Your task to perform on an android device: all mails in gmail Image 0: 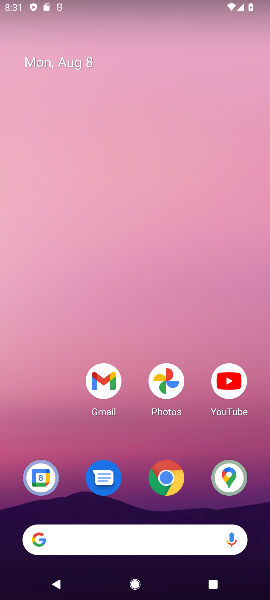
Step 0: click (104, 380)
Your task to perform on an android device: all mails in gmail Image 1: 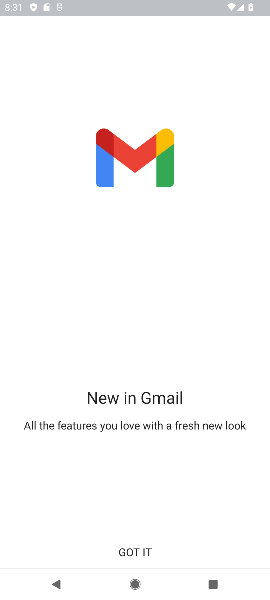
Step 1: click (122, 539)
Your task to perform on an android device: all mails in gmail Image 2: 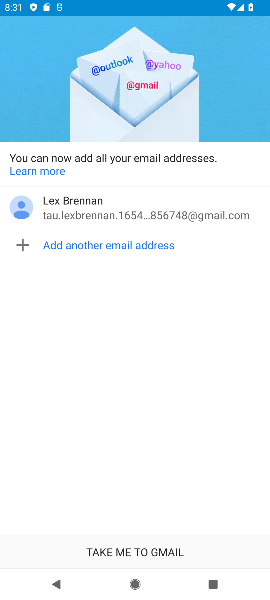
Step 2: click (128, 549)
Your task to perform on an android device: all mails in gmail Image 3: 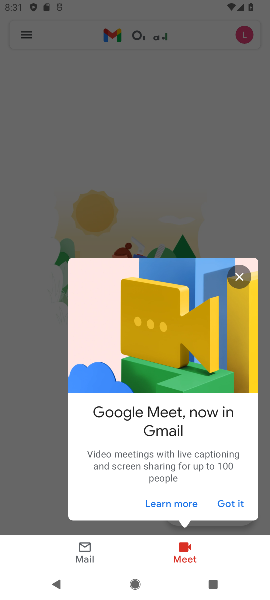
Step 3: click (232, 503)
Your task to perform on an android device: all mails in gmail Image 4: 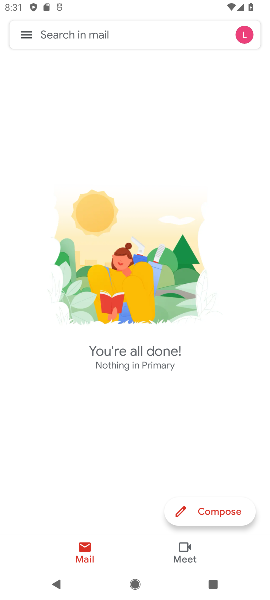
Step 4: click (30, 35)
Your task to perform on an android device: all mails in gmail Image 5: 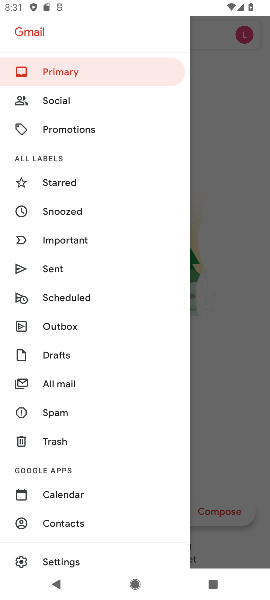
Step 5: click (69, 384)
Your task to perform on an android device: all mails in gmail Image 6: 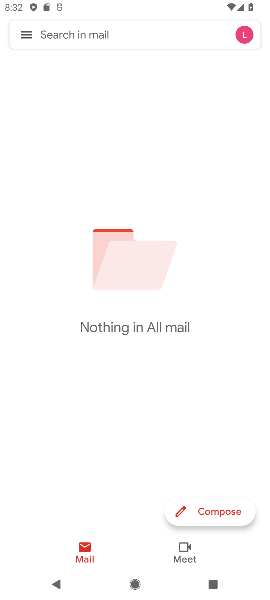
Step 6: task complete